Your task to perform on an android device: Do I have any events today? Image 0: 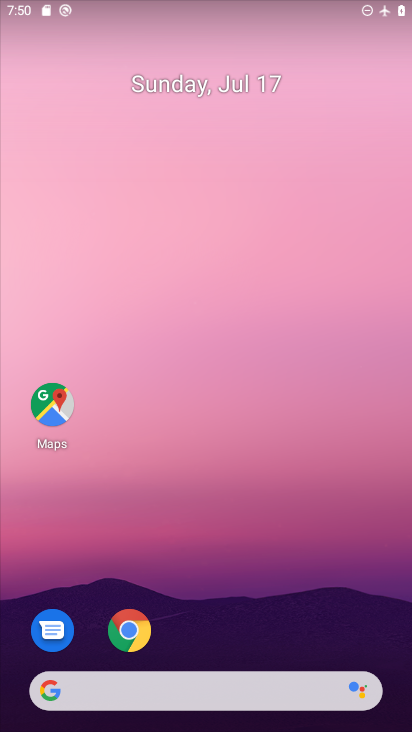
Step 0: drag from (377, 642) to (206, 53)
Your task to perform on an android device: Do I have any events today? Image 1: 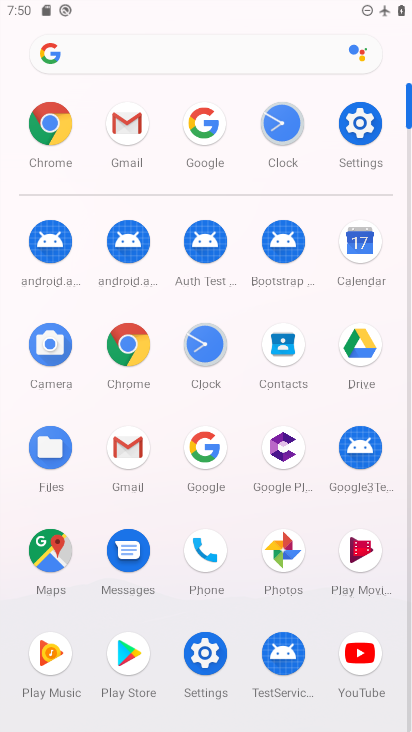
Step 1: click (371, 254)
Your task to perform on an android device: Do I have any events today? Image 2: 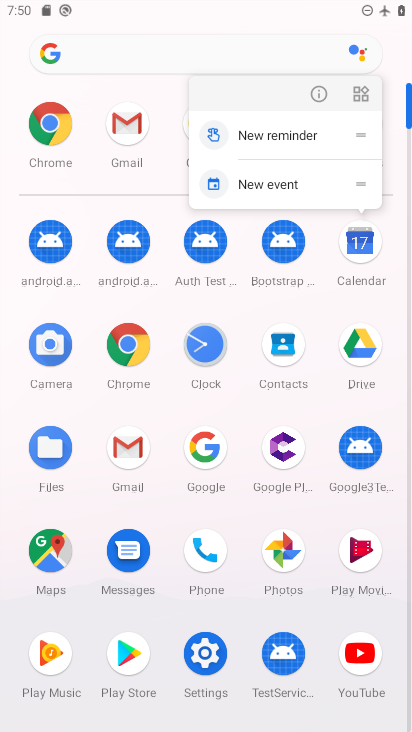
Step 2: click (353, 239)
Your task to perform on an android device: Do I have any events today? Image 3: 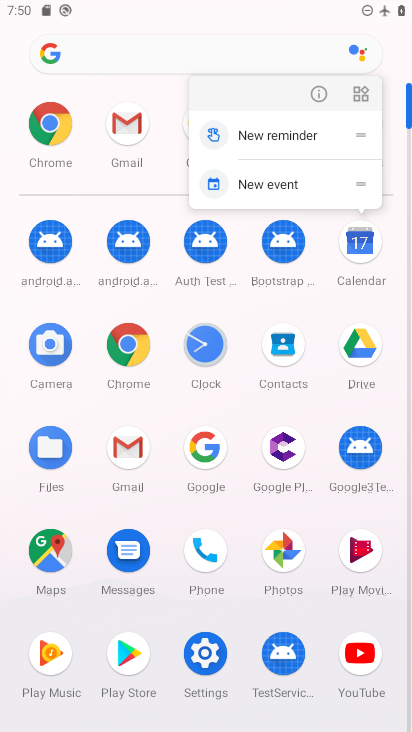
Step 3: click (353, 239)
Your task to perform on an android device: Do I have any events today? Image 4: 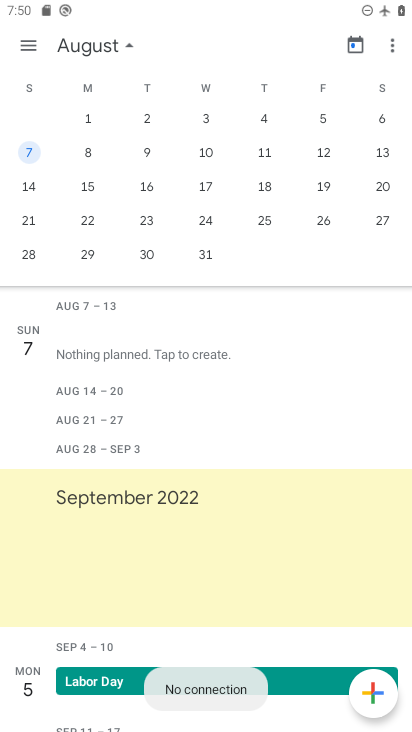
Step 4: task complete